Your task to perform on an android device: turn on bluetooth scan Image 0: 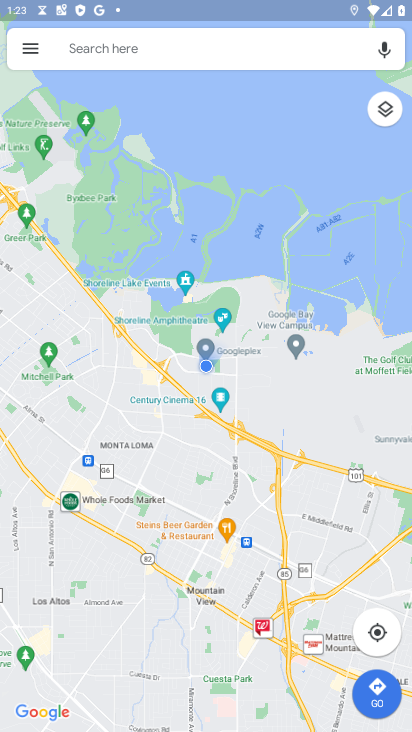
Step 0: press home button
Your task to perform on an android device: turn on bluetooth scan Image 1: 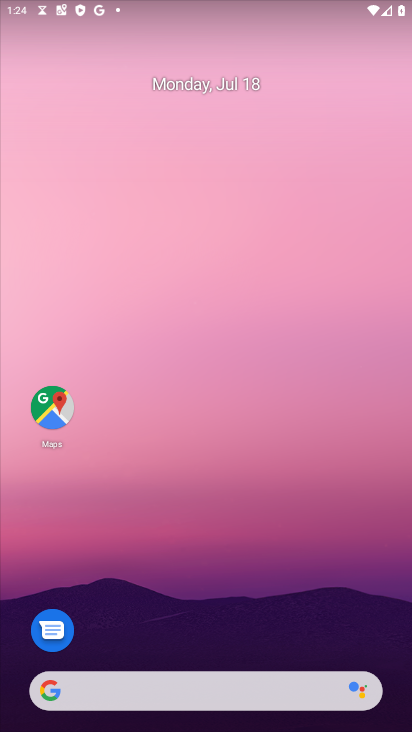
Step 1: drag from (255, 662) to (326, 9)
Your task to perform on an android device: turn on bluetooth scan Image 2: 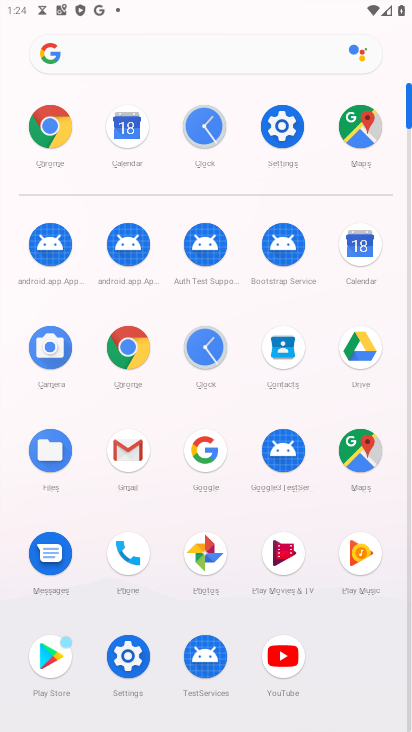
Step 2: click (296, 125)
Your task to perform on an android device: turn on bluetooth scan Image 3: 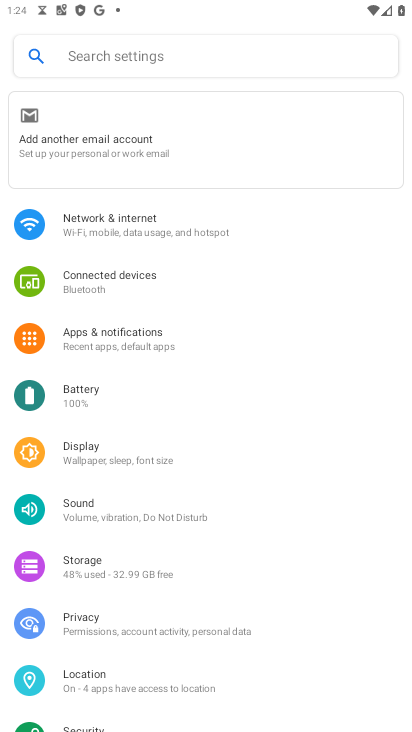
Step 3: click (88, 679)
Your task to perform on an android device: turn on bluetooth scan Image 4: 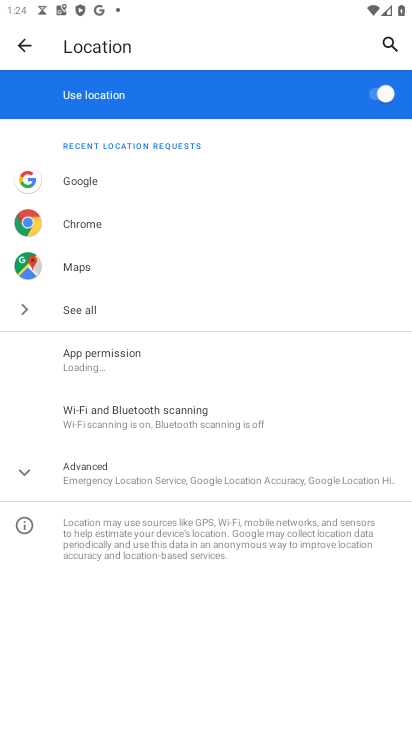
Step 4: click (167, 415)
Your task to perform on an android device: turn on bluetooth scan Image 5: 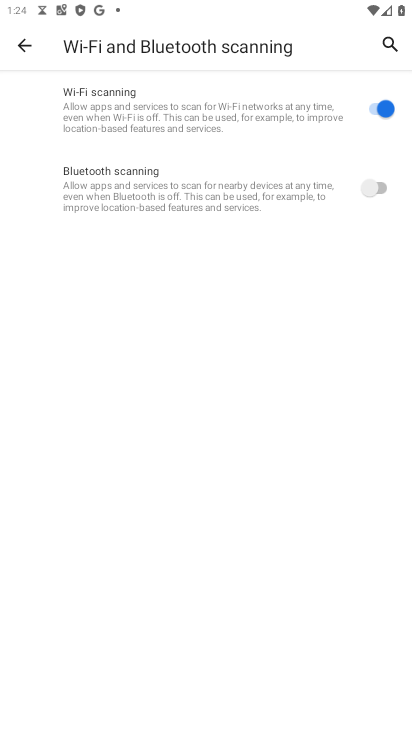
Step 5: click (379, 180)
Your task to perform on an android device: turn on bluetooth scan Image 6: 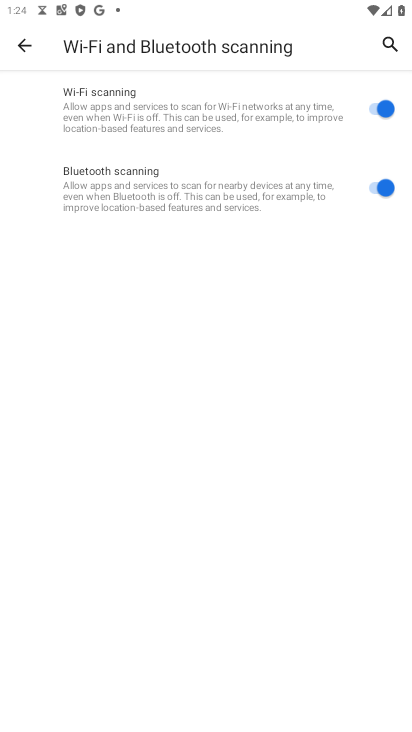
Step 6: task complete